Your task to perform on an android device: turn on the 12-hour format for clock Image 0: 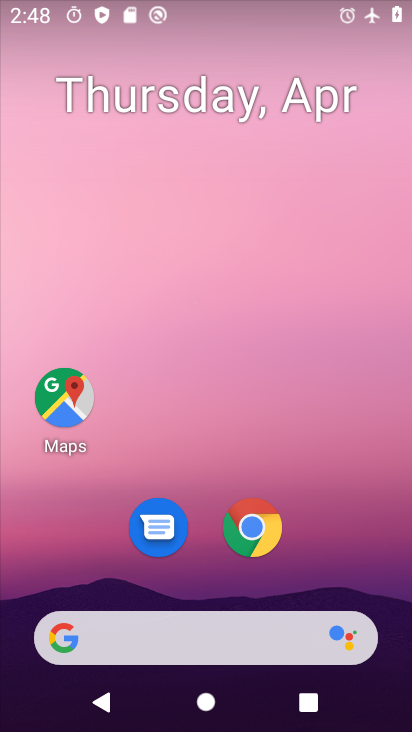
Step 0: drag from (346, 546) to (304, 143)
Your task to perform on an android device: turn on the 12-hour format for clock Image 1: 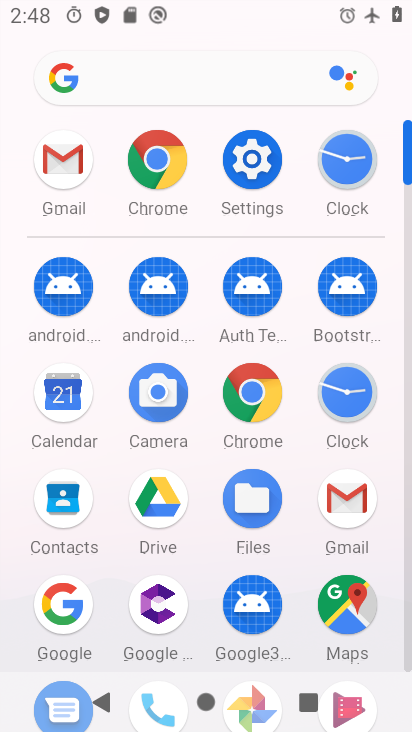
Step 1: click (336, 401)
Your task to perform on an android device: turn on the 12-hour format for clock Image 2: 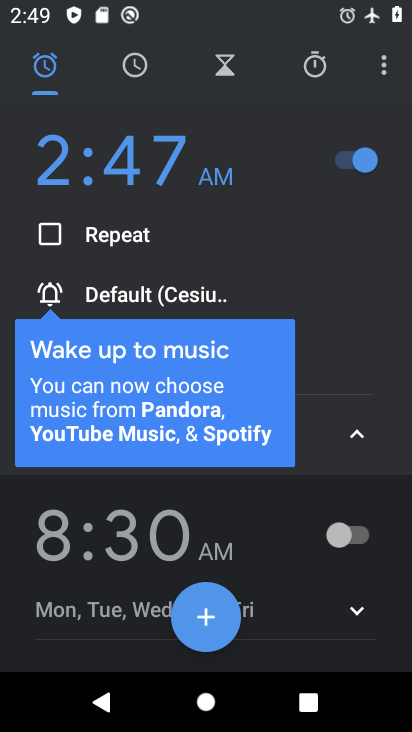
Step 2: click (389, 64)
Your task to perform on an android device: turn on the 12-hour format for clock Image 3: 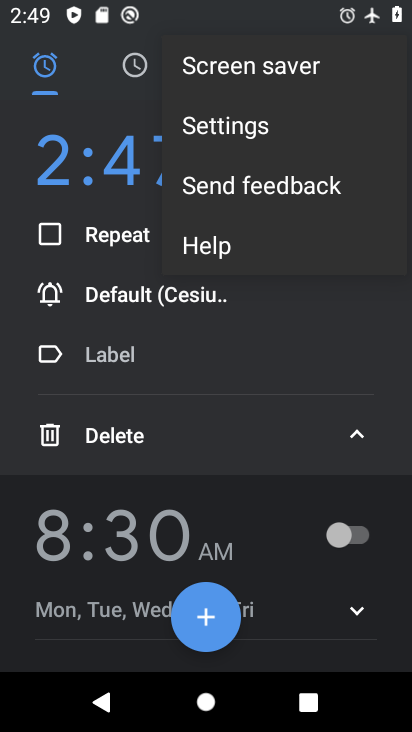
Step 3: click (286, 121)
Your task to perform on an android device: turn on the 12-hour format for clock Image 4: 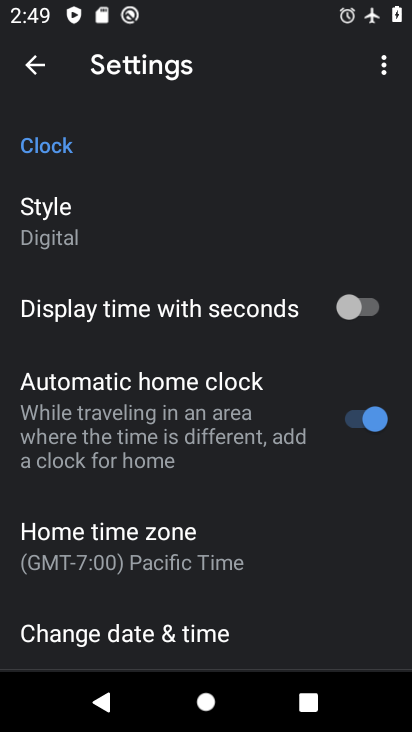
Step 4: drag from (217, 510) to (251, 224)
Your task to perform on an android device: turn on the 12-hour format for clock Image 5: 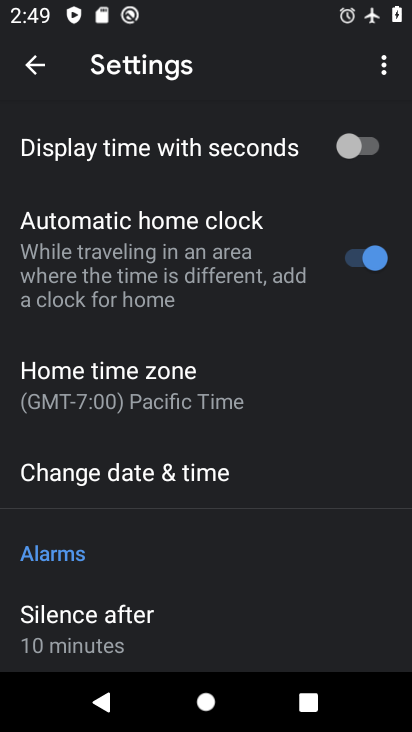
Step 5: click (177, 466)
Your task to perform on an android device: turn on the 12-hour format for clock Image 6: 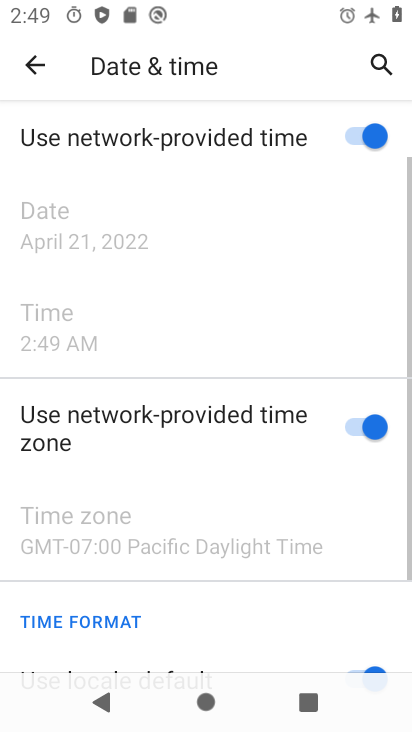
Step 6: task complete